Your task to perform on an android device: Go to display settings Image 0: 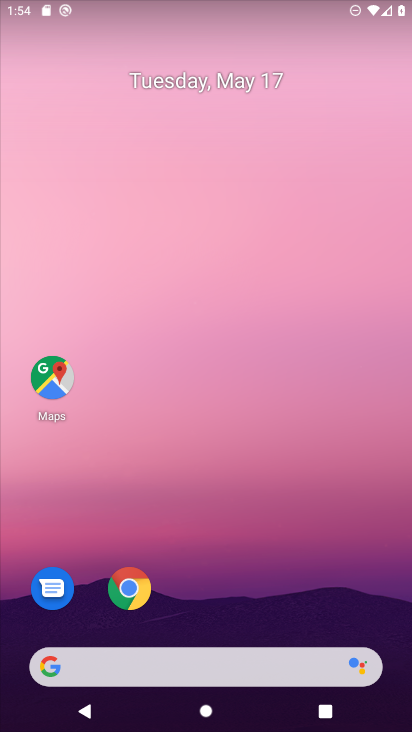
Step 0: drag from (197, 493) to (163, 209)
Your task to perform on an android device: Go to display settings Image 1: 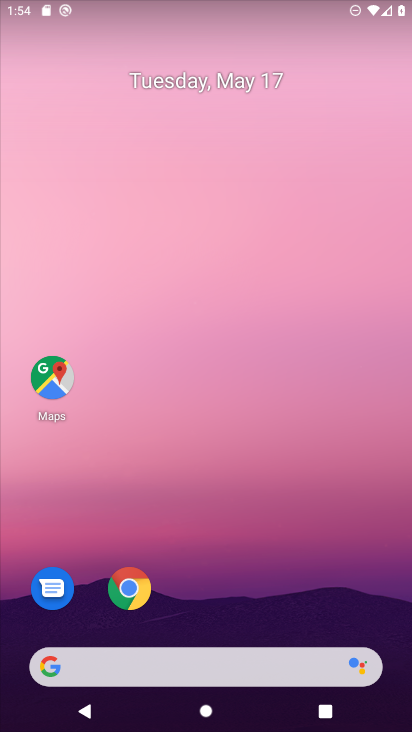
Step 1: drag from (192, 610) to (125, 54)
Your task to perform on an android device: Go to display settings Image 2: 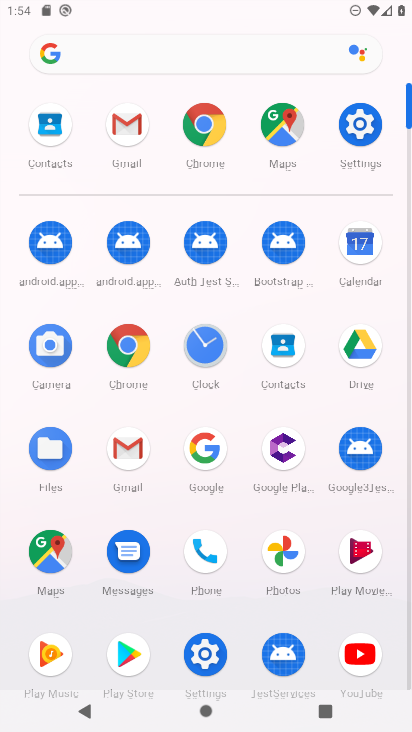
Step 2: click (351, 140)
Your task to perform on an android device: Go to display settings Image 3: 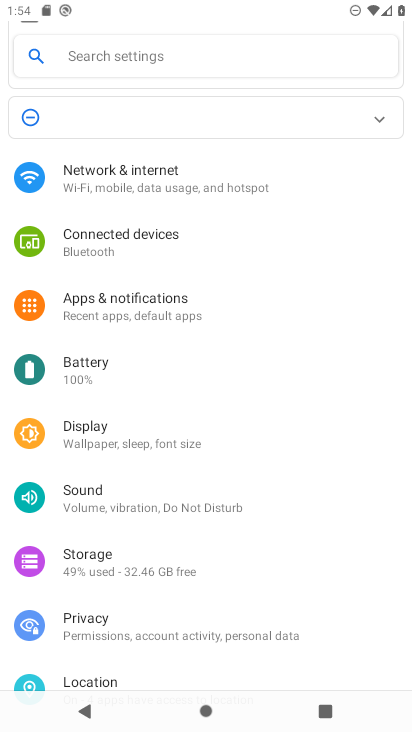
Step 3: click (93, 446)
Your task to perform on an android device: Go to display settings Image 4: 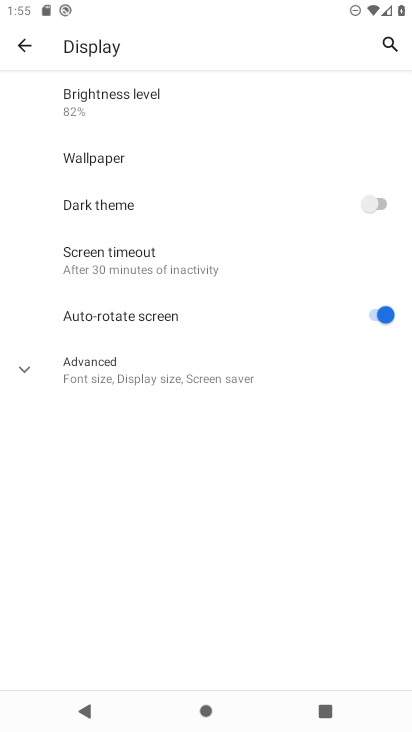
Step 4: click (200, 375)
Your task to perform on an android device: Go to display settings Image 5: 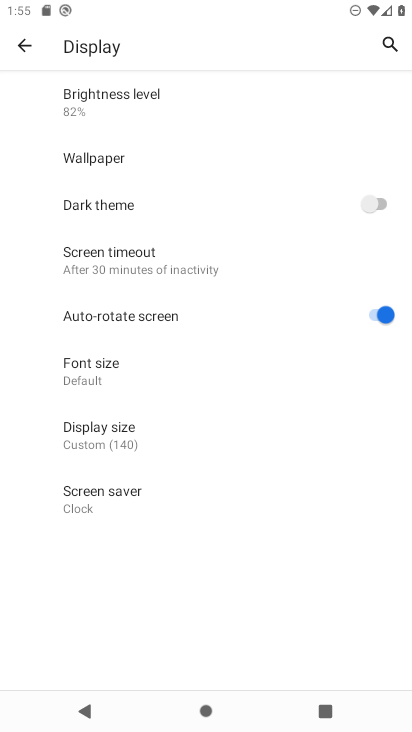
Step 5: task complete